Your task to perform on an android device: What is the news today? Image 0: 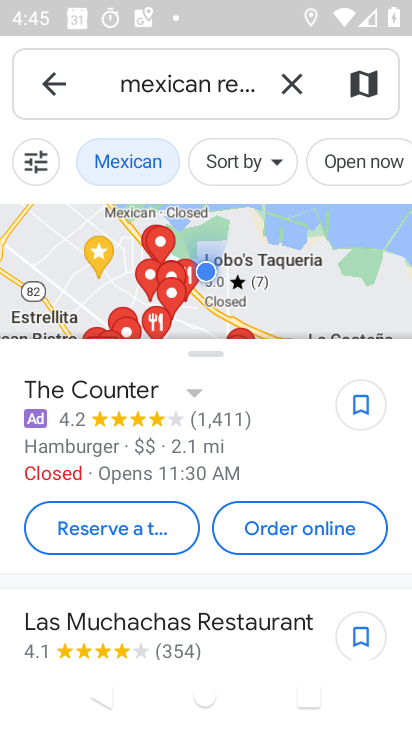
Step 0: press back button
Your task to perform on an android device: What is the news today? Image 1: 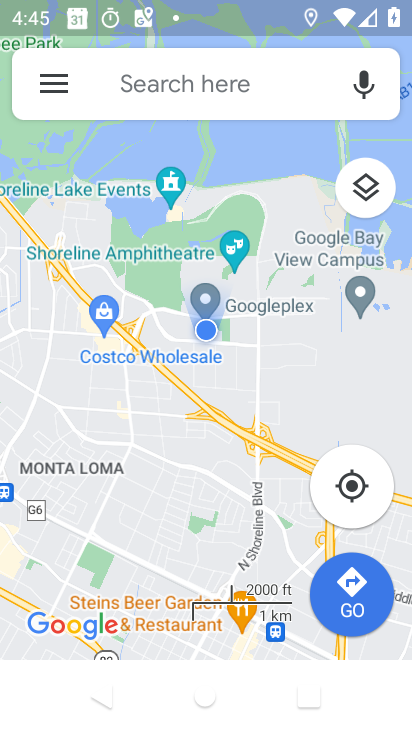
Step 1: press back button
Your task to perform on an android device: What is the news today? Image 2: 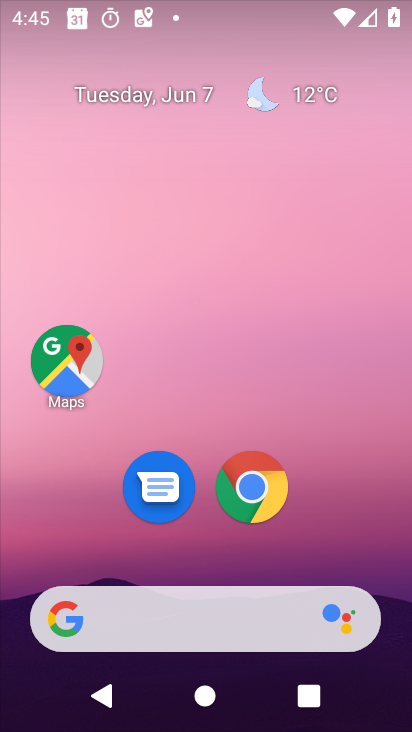
Step 2: click (203, 617)
Your task to perform on an android device: What is the news today? Image 3: 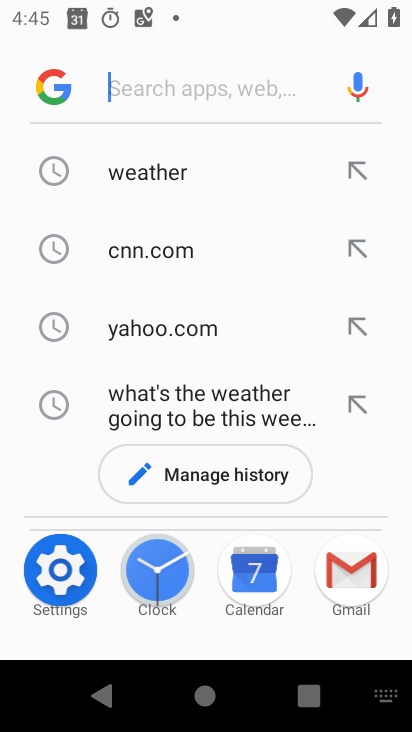
Step 3: click (184, 85)
Your task to perform on an android device: What is the news today? Image 4: 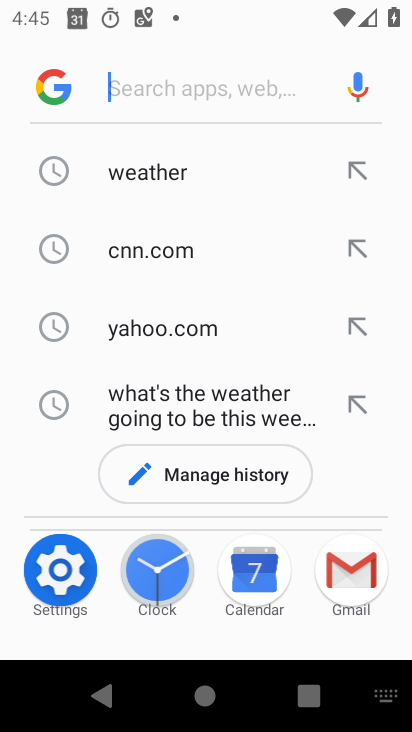
Step 4: type "news today"
Your task to perform on an android device: What is the news today? Image 5: 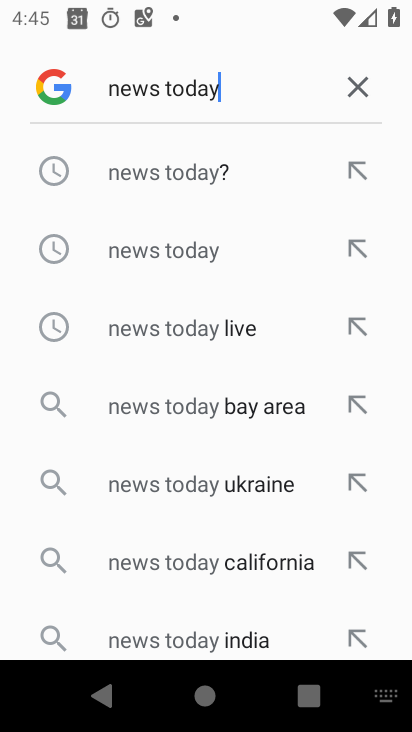
Step 5: click (146, 179)
Your task to perform on an android device: What is the news today? Image 6: 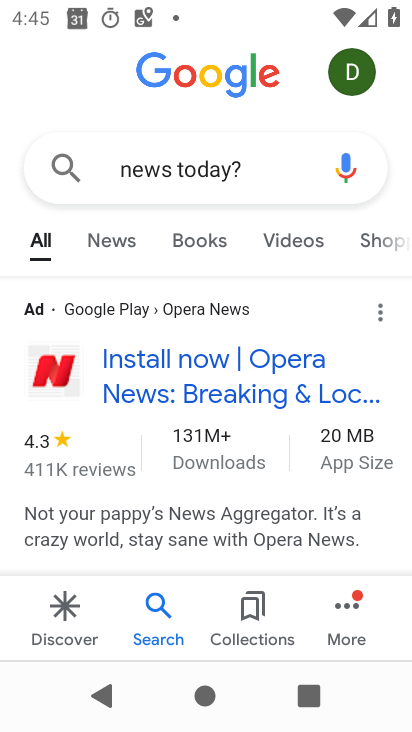
Step 6: task complete